Your task to perform on an android device: Go to settings Image 0: 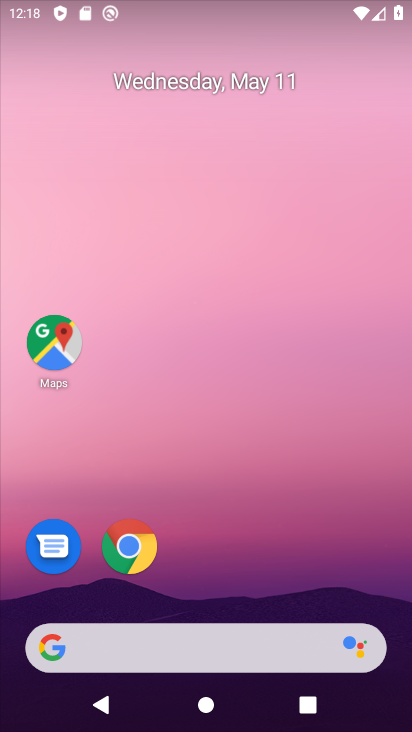
Step 0: drag from (283, 671) to (227, 275)
Your task to perform on an android device: Go to settings Image 1: 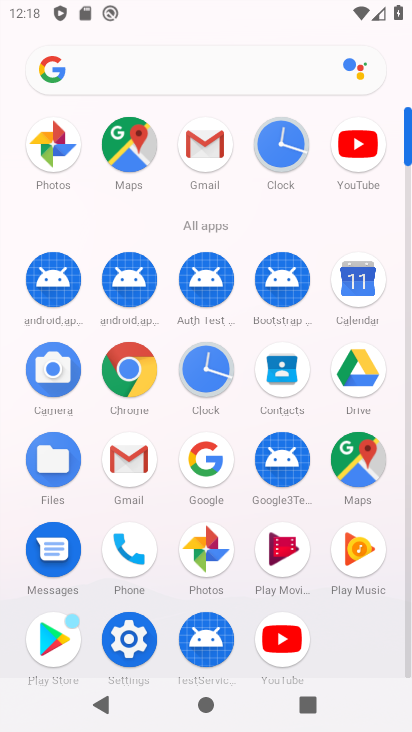
Step 1: click (134, 632)
Your task to perform on an android device: Go to settings Image 2: 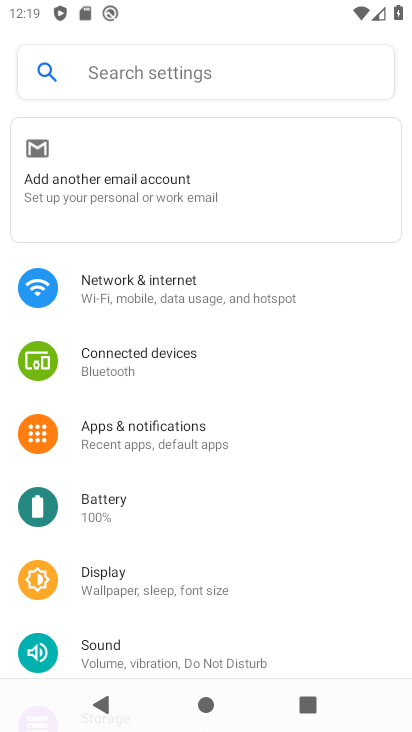
Step 2: task complete